Your task to perform on an android device: uninstall "DuckDuckGo Privacy Browser" Image 0: 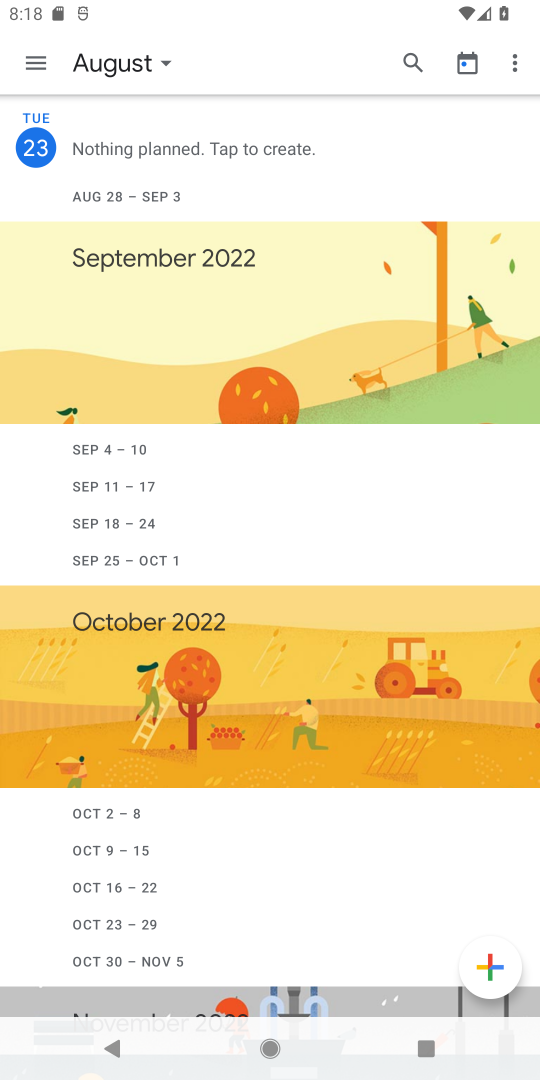
Step 0: press home button
Your task to perform on an android device: uninstall "DuckDuckGo Privacy Browser" Image 1: 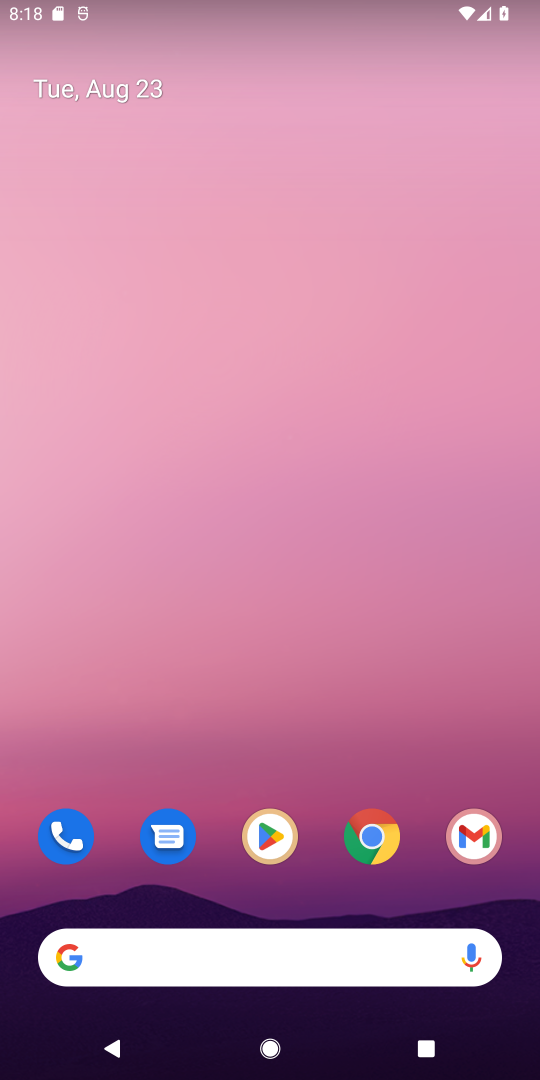
Step 1: click (275, 835)
Your task to perform on an android device: uninstall "DuckDuckGo Privacy Browser" Image 2: 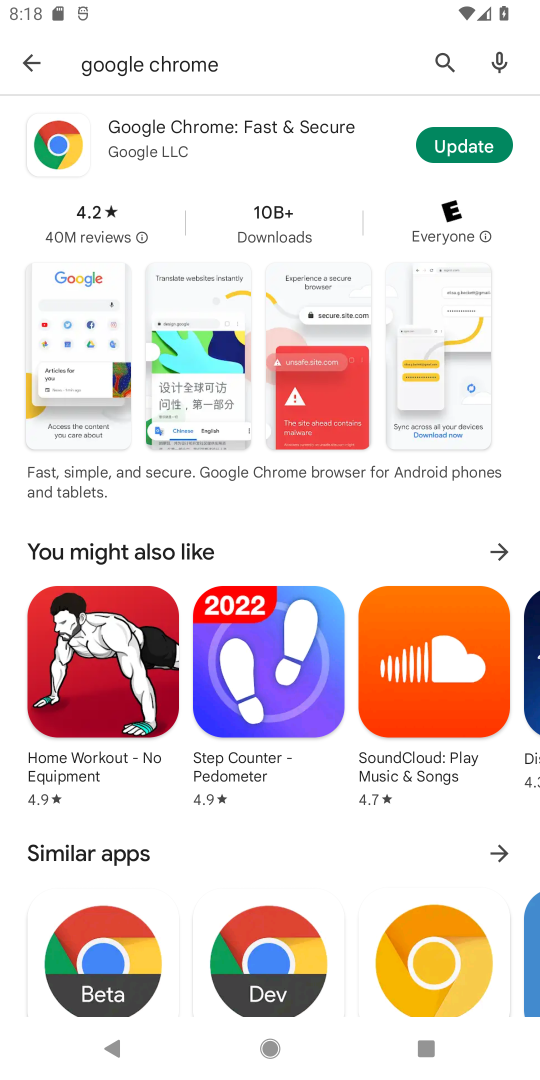
Step 2: click (442, 61)
Your task to perform on an android device: uninstall "DuckDuckGo Privacy Browser" Image 3: 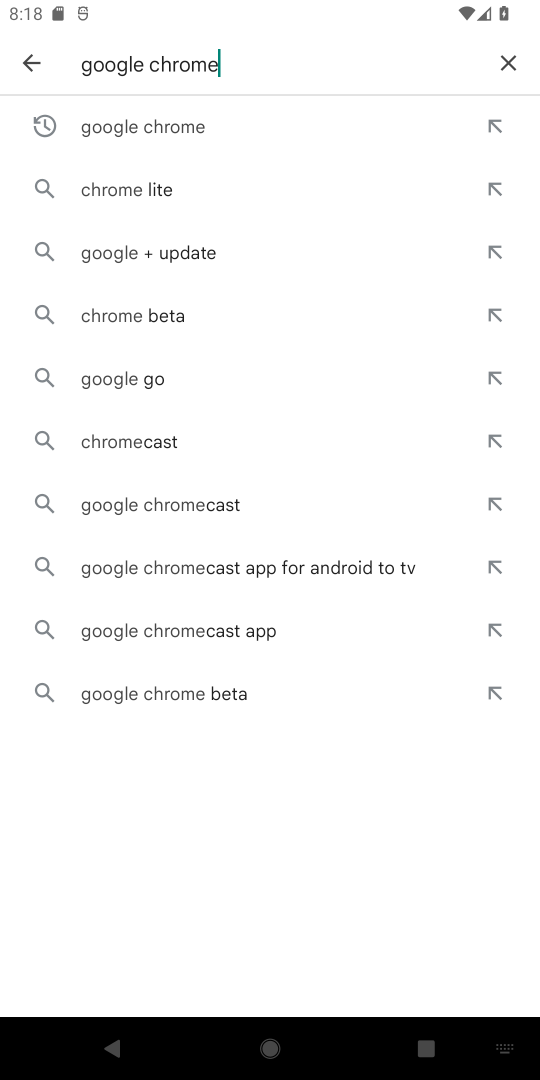
Step 3: click (511, 53)
Your task to perform on an android device: uninstall "DuckDuckGo Privacy Browser" Image 4: 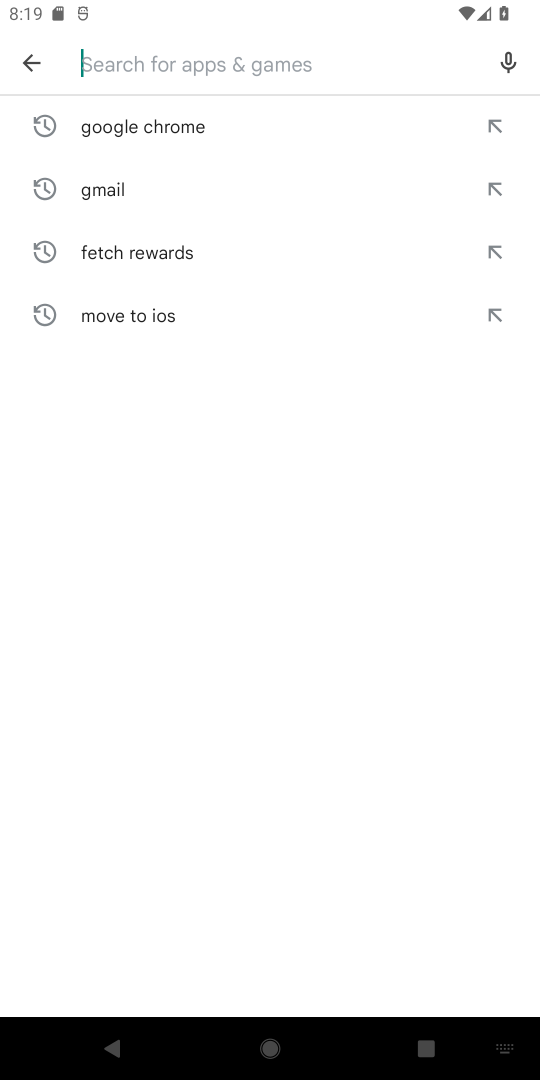
Step 4: type "DuckDuckGo Privacy Browser"
Your task to perform on an android device: uninstall "DuckDuckGo Privacy Browser" Image 5: 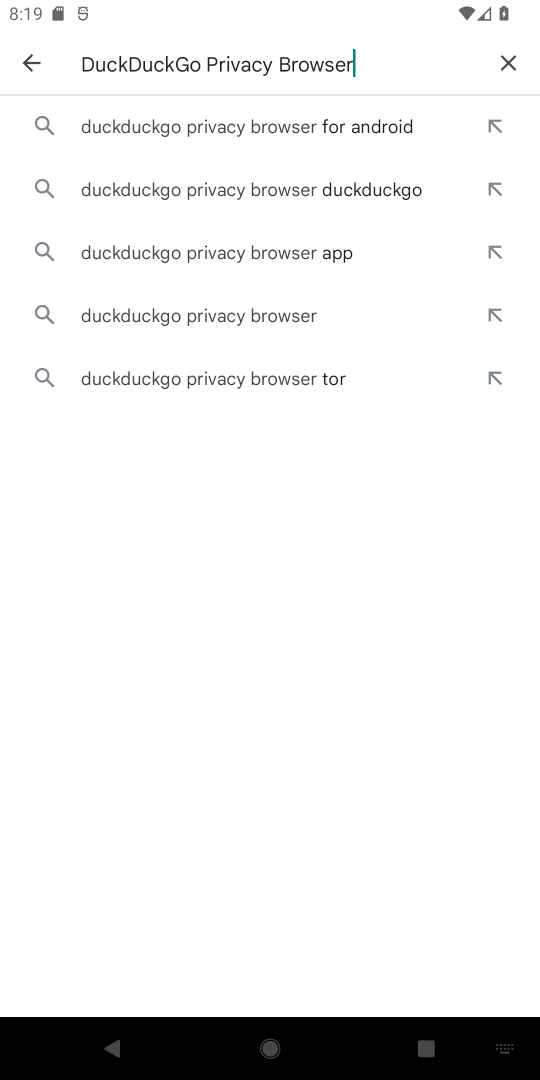
Step 5: click (288, 112)
Your task to perform on an android device: uninstall "DuckDuckGo Privacy Browser" Image 6: 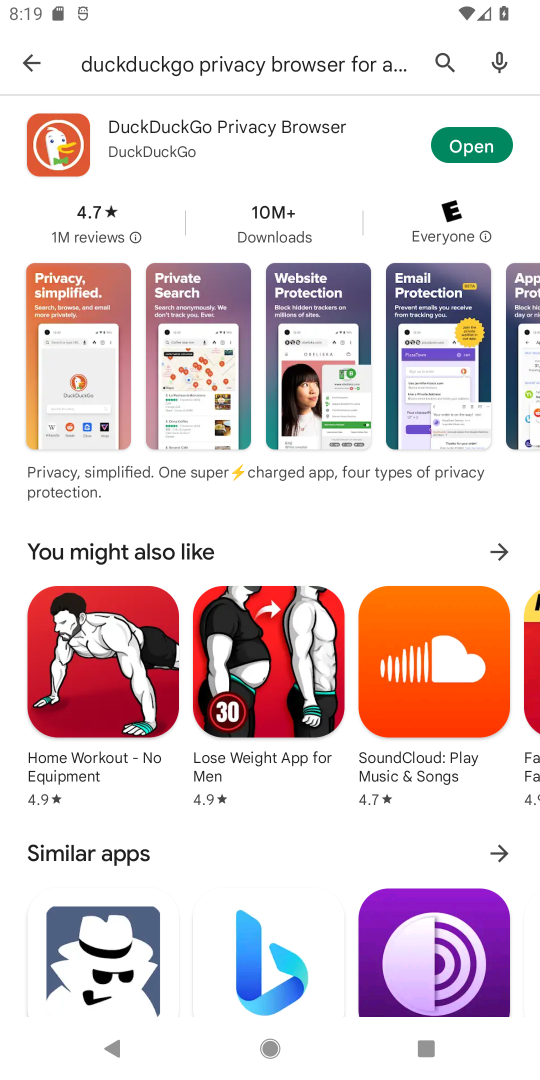
Step 6: click (129, 110)
Your task to perform on an android device: uninstall "DuckDuckGo Privacy Browser" Image 7: 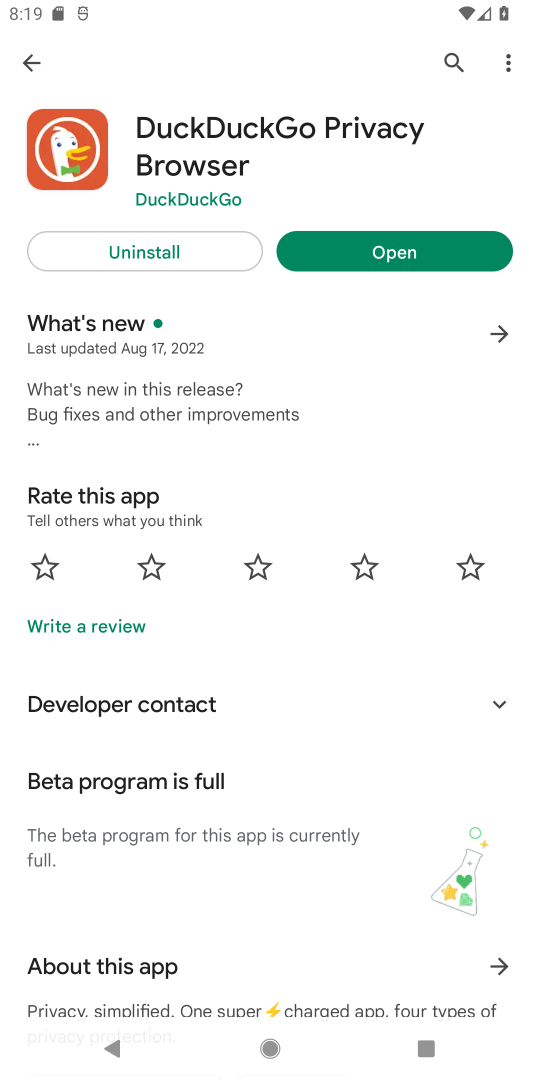
Step 7: click (182, 243)
Your task to perform on an android device: uninstall "DuckDuckGo Privacy Browser" Image 8: 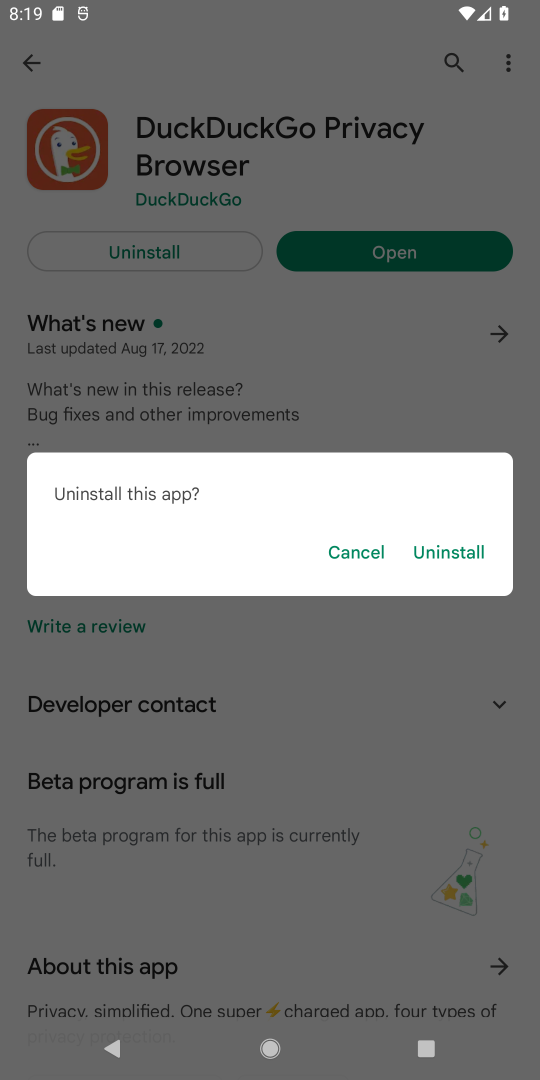
Step 8: click (450, 556)
Your task to perform on an android device: uninstall "DuckDuckGo Privacy Browser" Image 9: 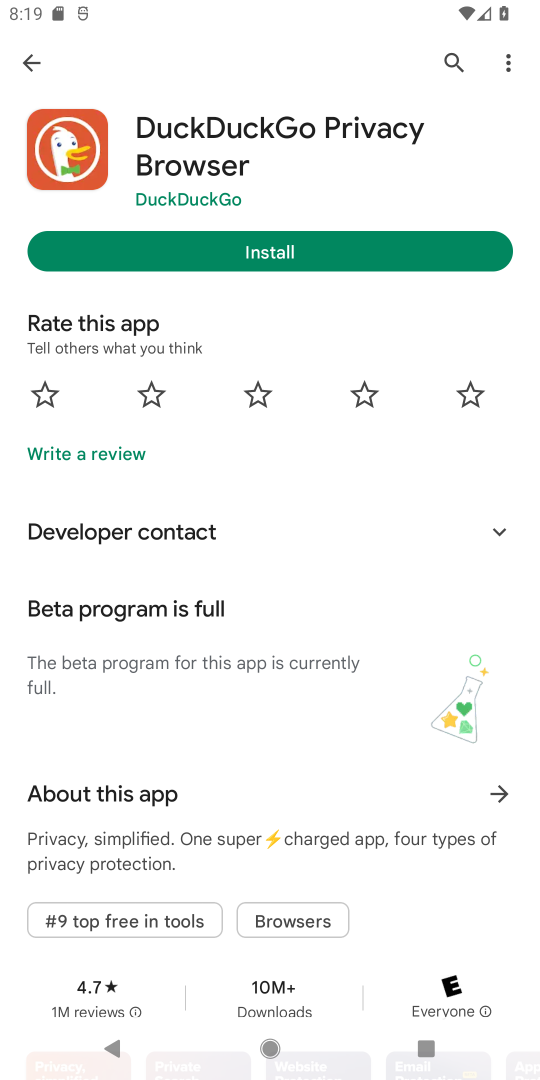
Step 9: task complete